Your task to perform on an android device: turn notification dots on Image 0: 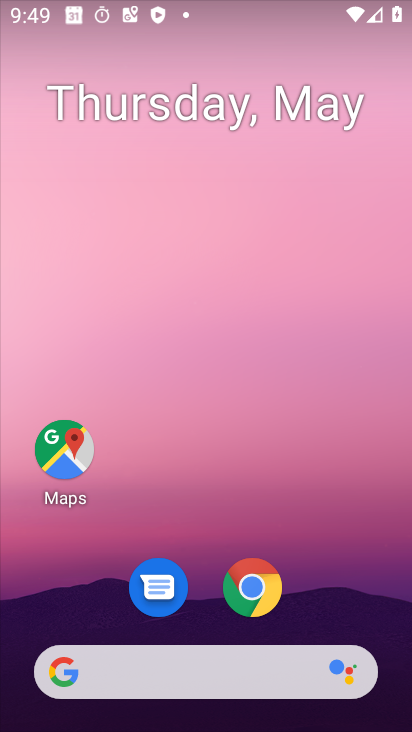
Step 0: drag from (337, 633) to (299, 8)
Your task to perform on an android device: turn notification dots on Image 1: 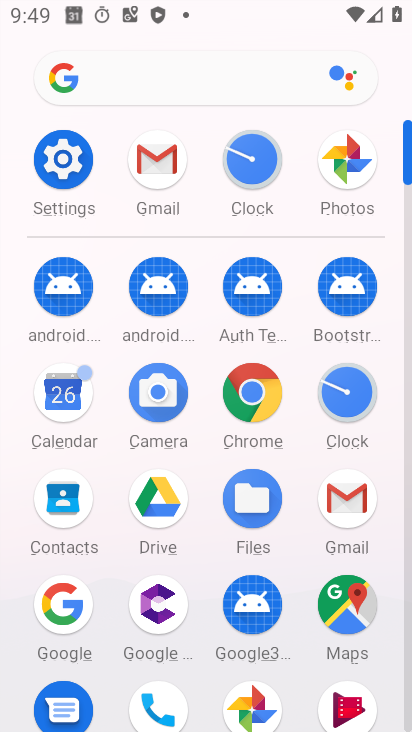
Step 1: click (55, 171)
Your task to perform on an android device: turn notification dots on Image 2: 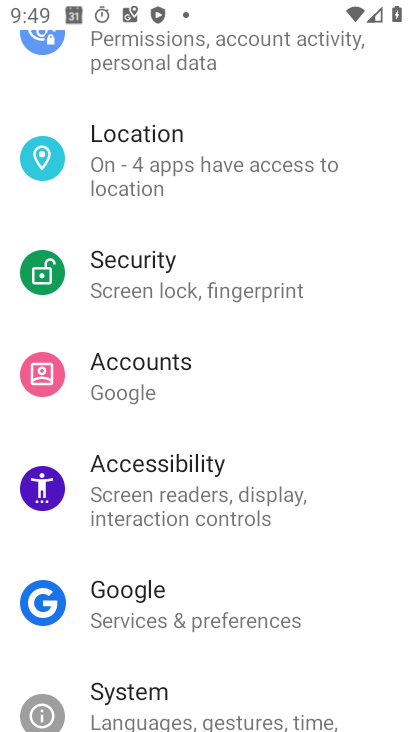
Step 2: drag from (242, 192) to (195, 563)
Your task to perform on an android device: turn notification dots on Image 3: 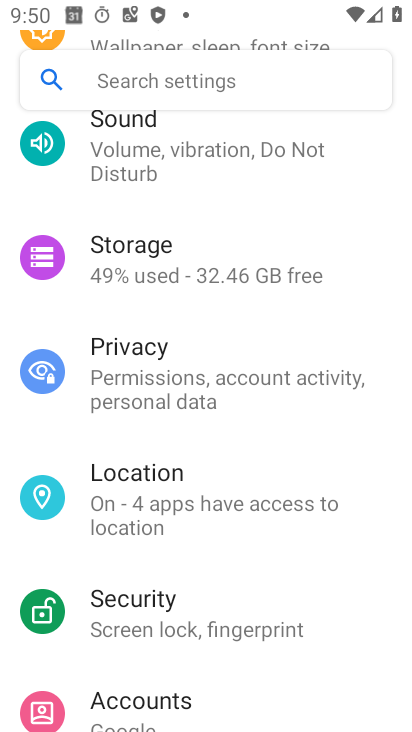
Step 3: drag from (241, 265) to (211, 560)
Your task to perform on an android device: turn notification dots on Image 4: 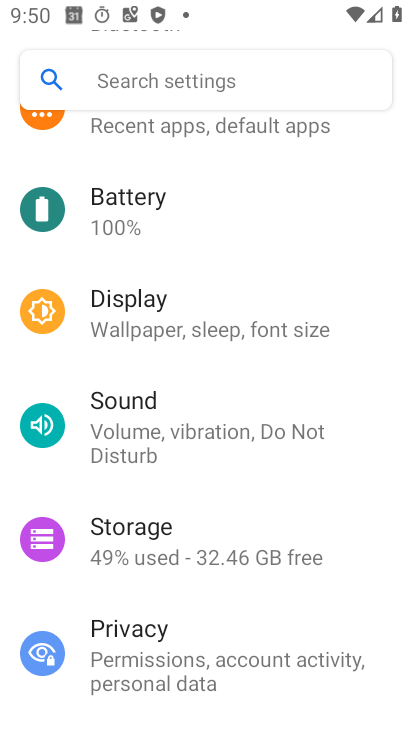
Step 4: drag from (242, 249) to (199, 569)
Your task to perform on an android device: turn notification dots on Image 5: 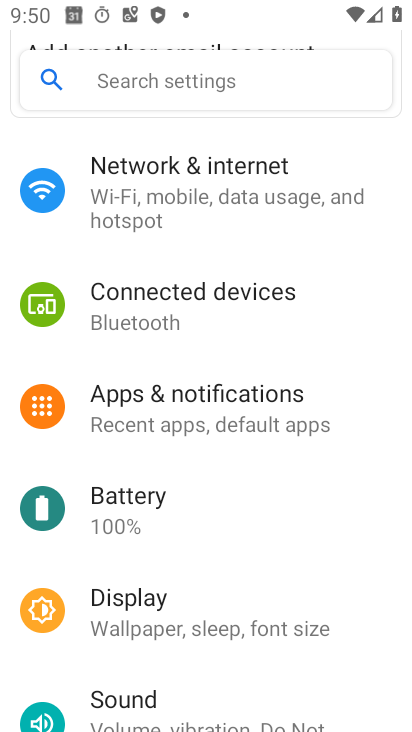
Step 5: click (167, 414)
Your task to perform on an android device: turn notification dots on Image 6: 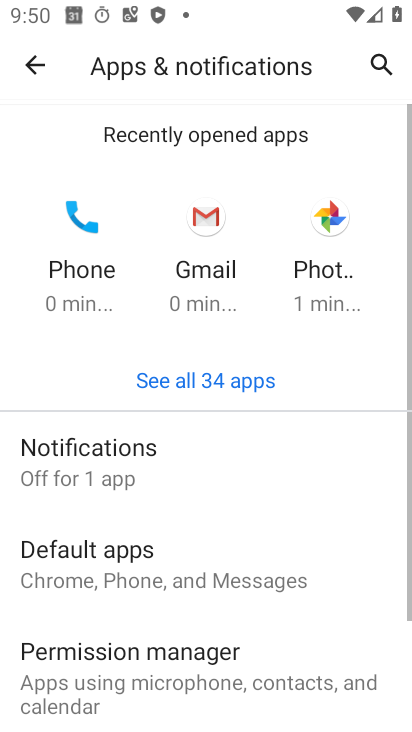
Step 6: click (84, 469)
Your task to perform on an android device: turn notification dots on Image 7: 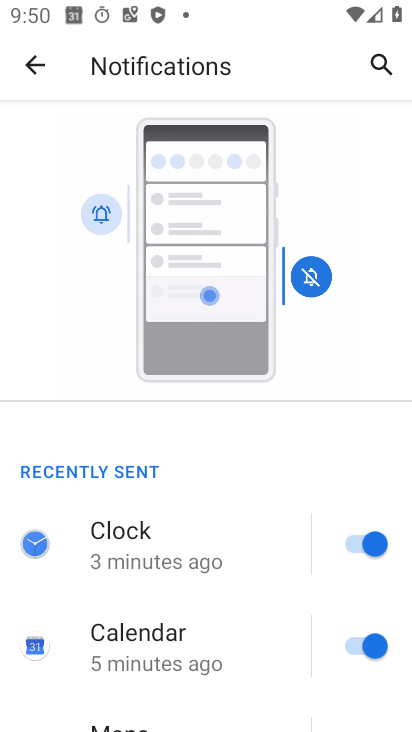
Step 7: drag from (153, 580) to (201, 40)
Your task to perform on an android device: turn notification dots on Image 8: 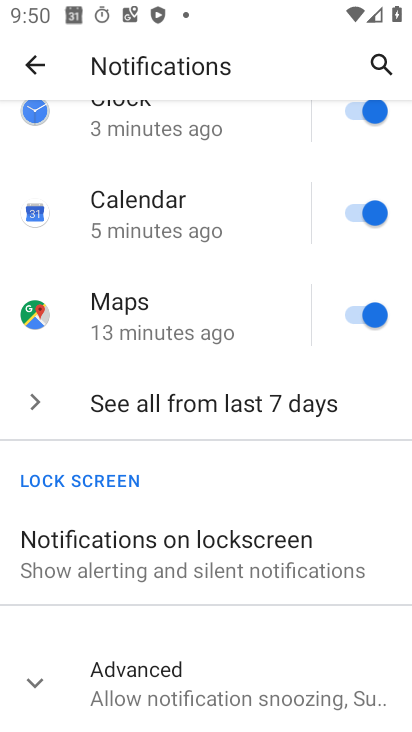
Step 8: drag from (148, 474) to (151, 211)
Your task to perform on an android device: turn notification dots on Image 9: 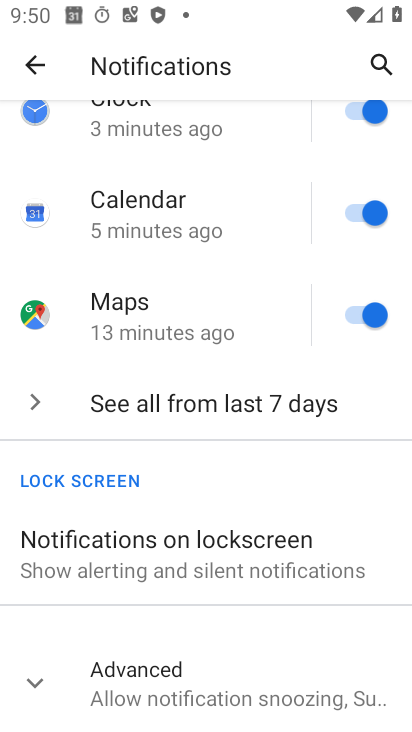
Step 9: click (36, 689)
Your task to perform on an android device: turn notification dots on Image 10: 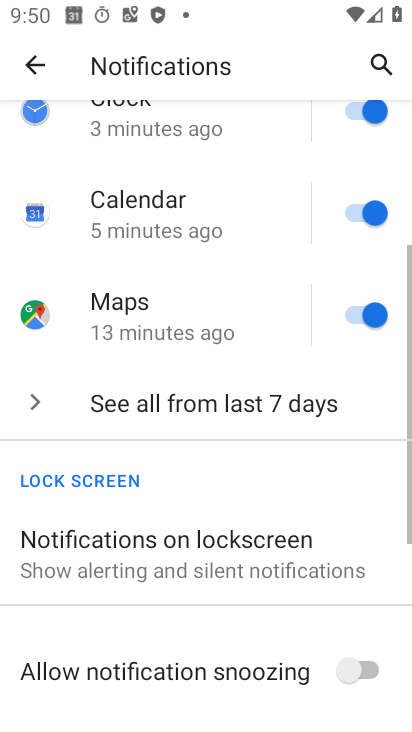
Step 10: task complete